Your task to perform on an android device: What's on my calendar tomorrow? Image 0: 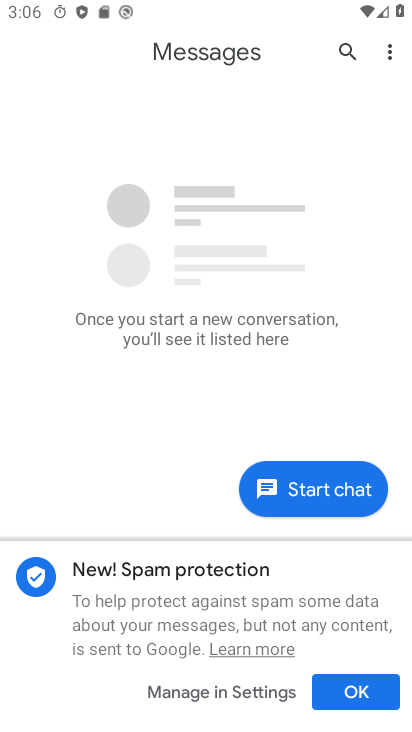
Step 0: press home button
Your task to perform on an android device: What's on my calendar tomorrow? Image 1: 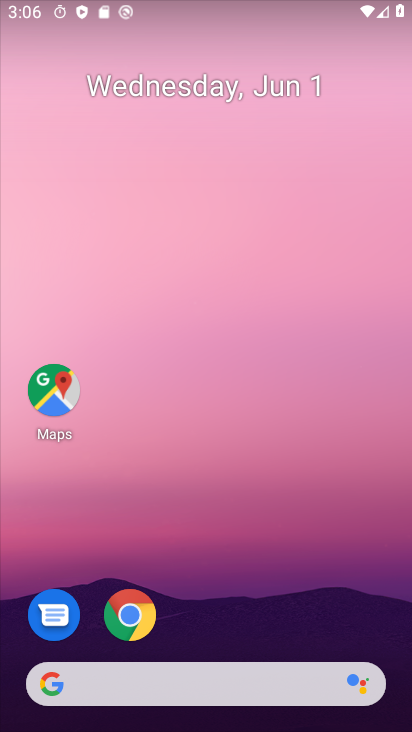
Step 1: drag from (293, 649) to (337, 53)
Your task to perform on an android device: What's on my calendar tomorrow? Image 2: 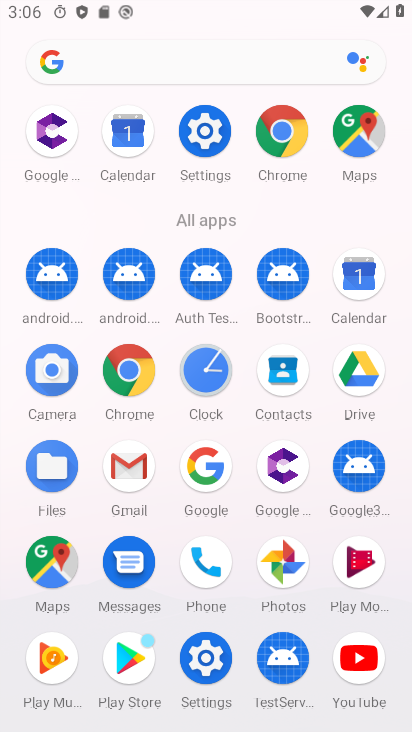
Step 2: click (357, 285)
Your task to perform on an android device: What's on my calendar tomorrow? Image 3: 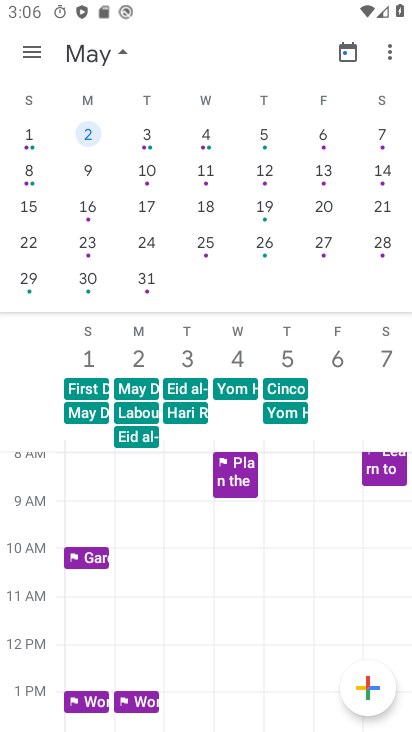
Step 3: drag from (383, 225) to (1, 175)
Your task to perform on an android device: What's on my calendar tomorrow? Image 4: 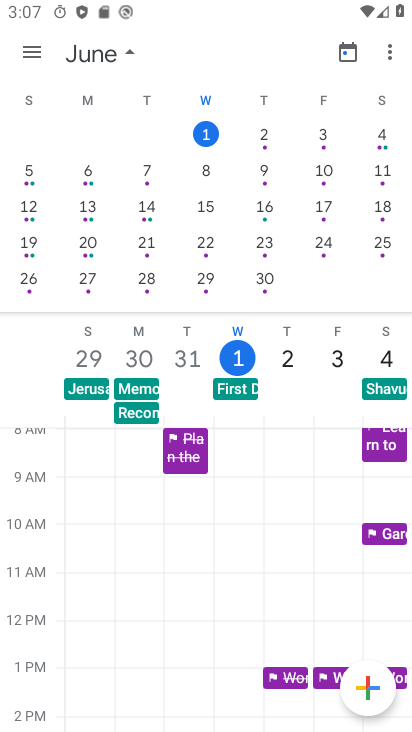
Step 4: click (259, 135)
Your task to perform on an android device: What's on my calendar tomorrow? Image 5: 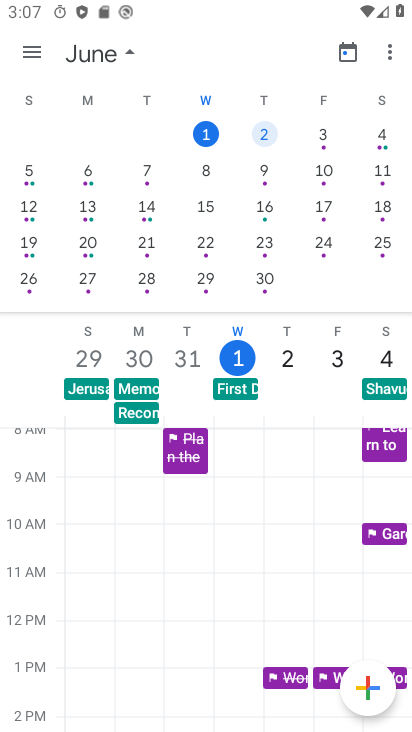
Step 5: click (259, 135)
Your task to perform on an android device: What's on my calendar tomorrow? Image 6: 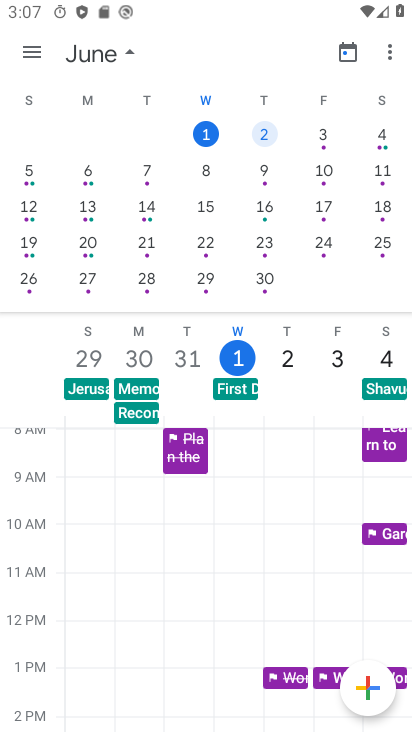
Step 6: task complete